Your task to perform on an android device: open device folders in google photos Image 0: 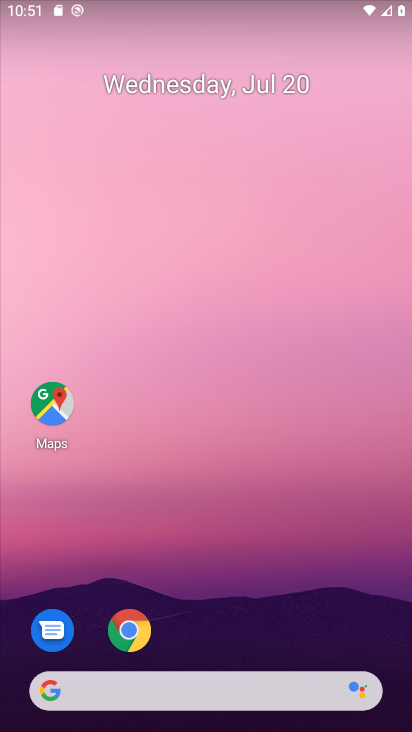
Step 0: drag from (226, 536) to (194, 120)
Your task to perform on an android device: open device folders in google photos Image 1: 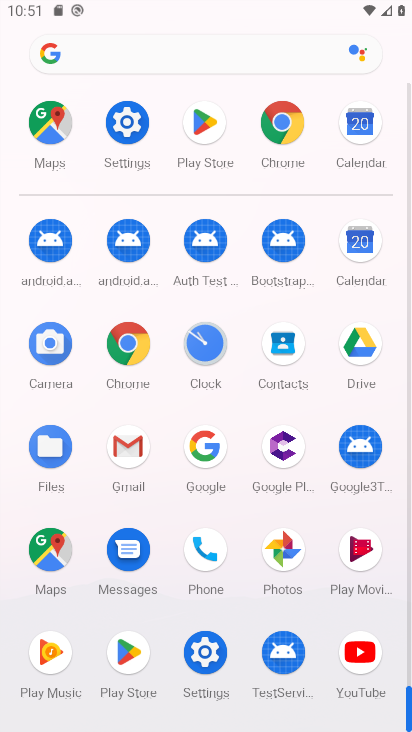
Step 1: click (281, 558)
Your task to perform on an android device: open device folders in google photos Image 2: 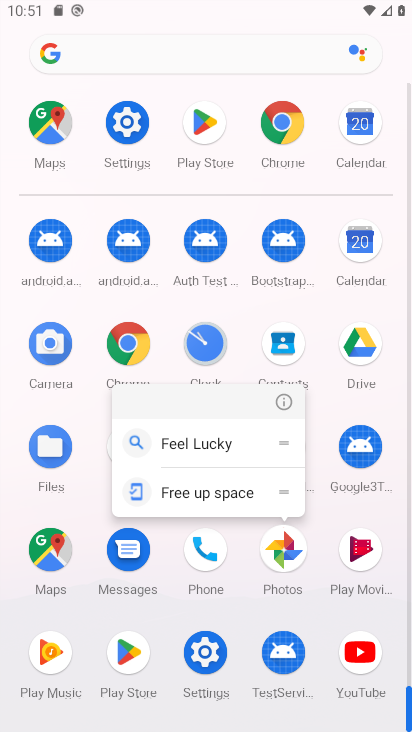
Step 2: click (281, 557)
Your task to perform on an android device: open device folders in google photos Image 3: 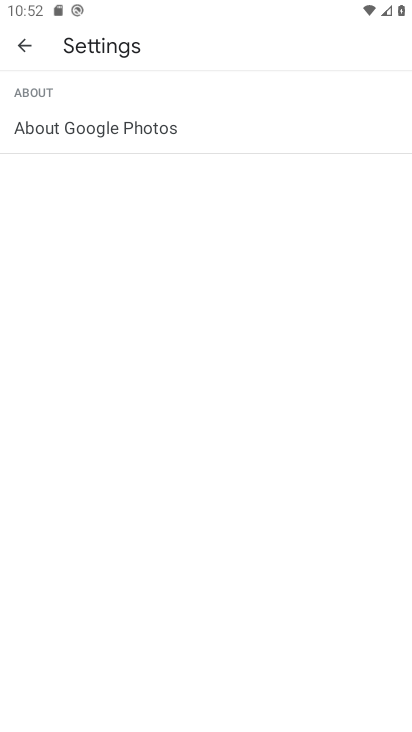
Step 3: click (20, 43)
Your task to perform on an android device: open device folders in google photos Image 4: 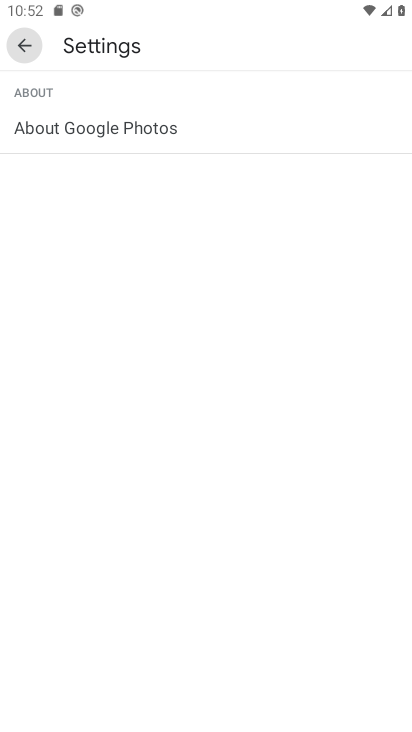
Step 4: click (20, 45)
Your task to perform on an android device: open device folders in google photos Image 5: 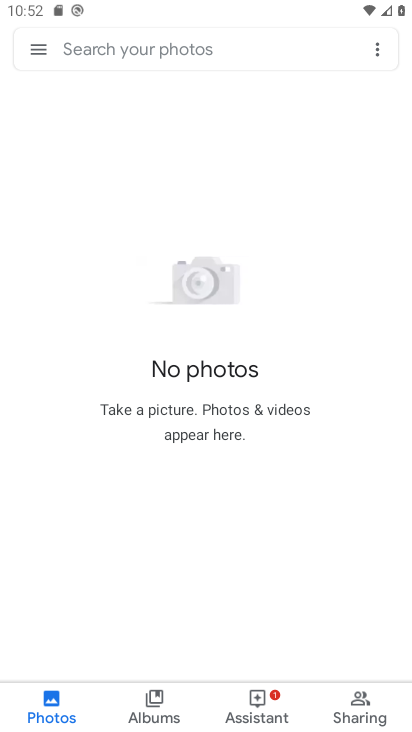
Step 5: drag from (29, 49) to (67, 356)
Your task to perform on an android device: open device folders in google photos Image 6: 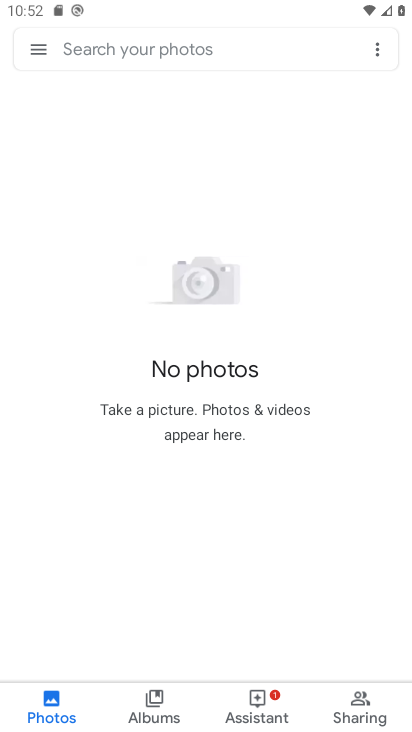
Step 6: drag from (41, 40) to (81, 142)
Your task to perform on an android device: open device folders in google photos Image 7: 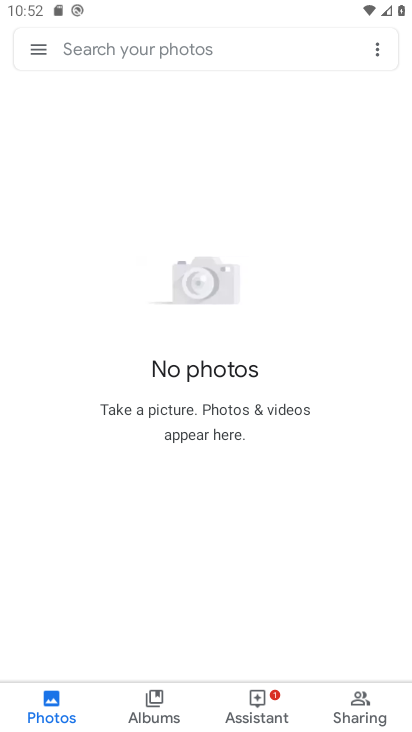
Step 7: drag from (42, 56) to (95, 191)
Your task to perform on an android device: open device folders in google photos Image 8: 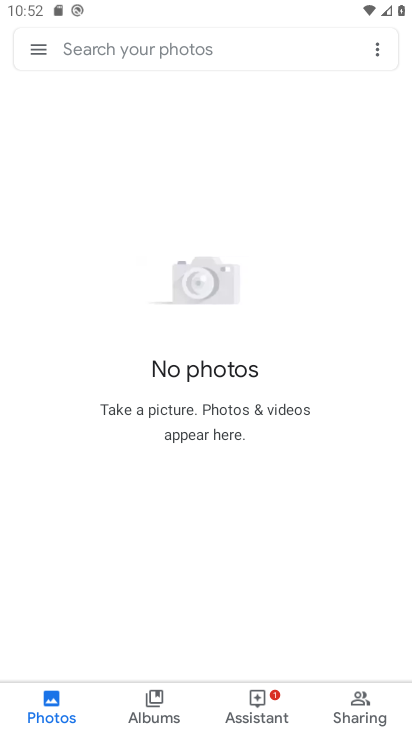
Step 8: click (43, 47)
Your task to perform on an android device: open device folders in google photos Image 9: 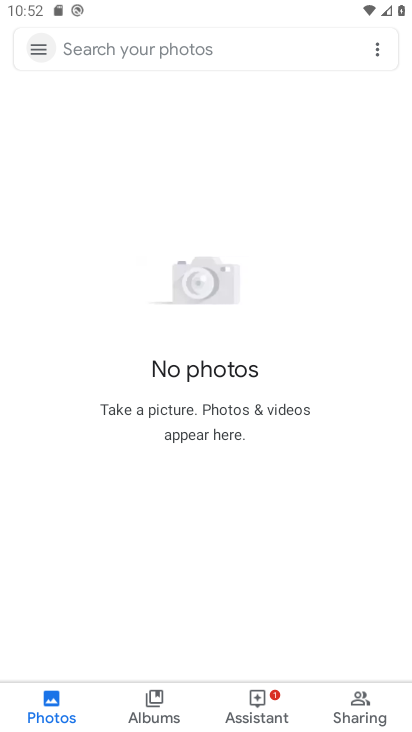
Step 9: drag from (40, 49) to (118, 108)
Your task to perform on an android device: open device folders in google photos Image 10: 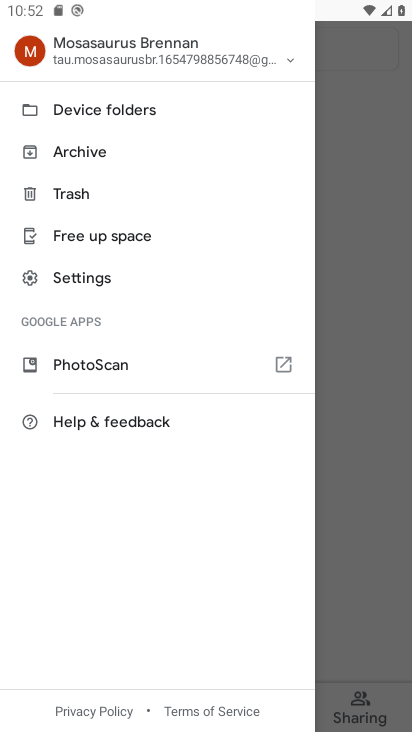
Step 10: click (118, 109)
Your task to perform on an android device: open device folders in google photos Image 11: 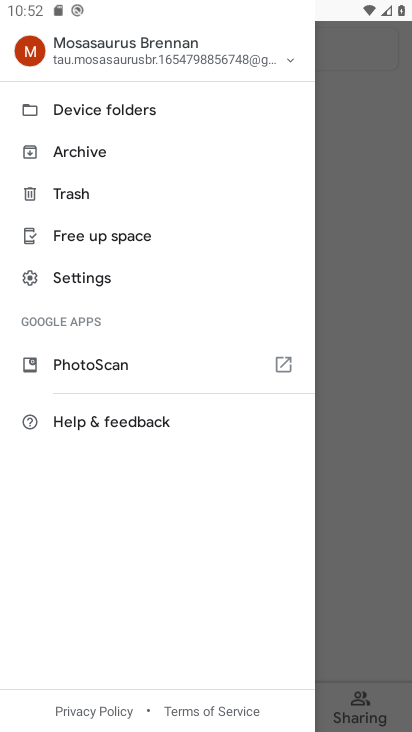
Step 11: click (118, 109)
Your task to perform on an android device: open device folders in google photos Image 12: 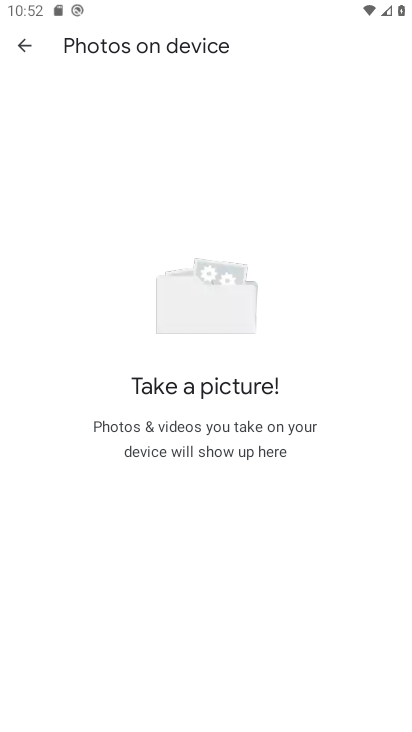
Step 12: task complete